Your task to perform on an android device: Play the last video I watched on Youtube Image 0: 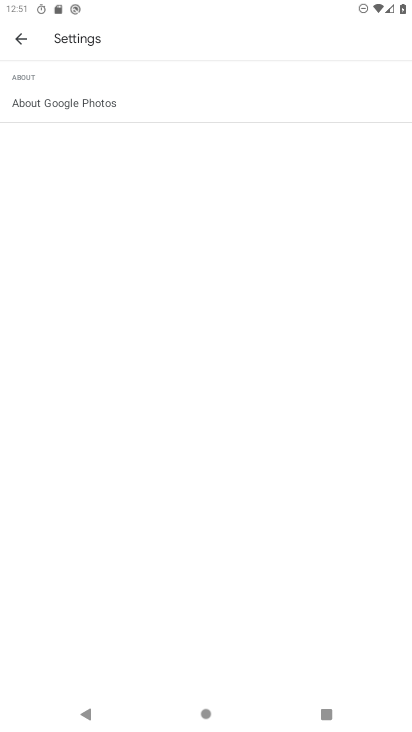
Step 0: press home button
Your task to perform on an android device: Play the last video I watched on Youtube Image 1: 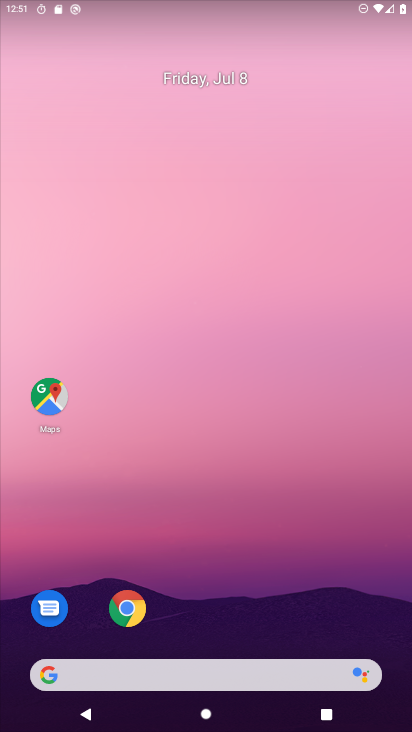
Step 1: drag from (245, 699) to (244, 217)
Your task to perform on an android device: Play the last video I watched on Youtube Image 2: 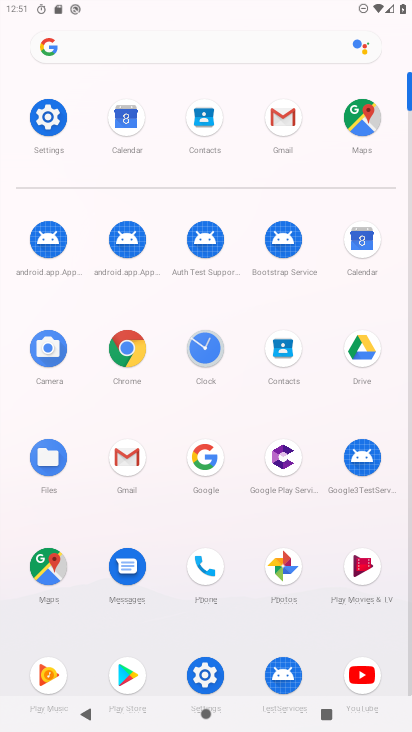
Step 2: click (366, 673)
Your task to perform on an android device: Play the last video I watched on Youtube Image 3: 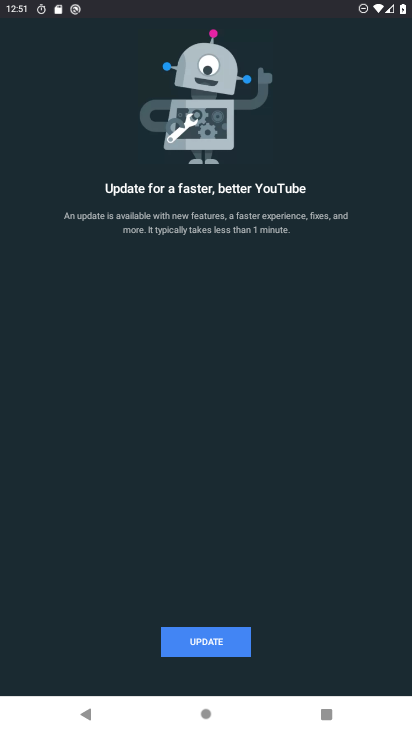
Step 3: task complete